Your task to perform on an android device: Search for seafood restaurants on Google Maps Image 0: 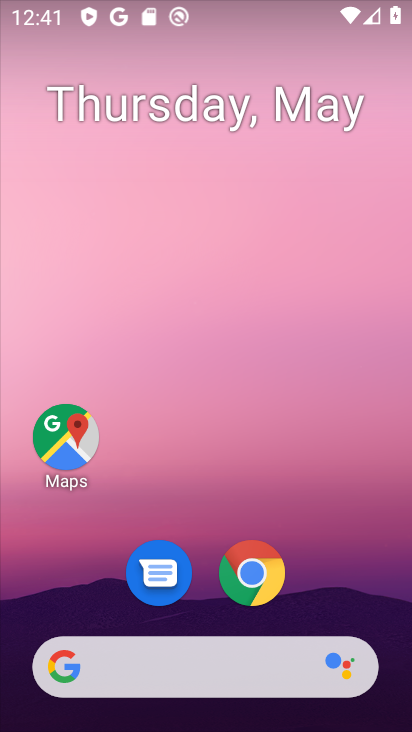
Step 0: drag from (319, 561) to (401, 258)
Your task to perform on an android device: Search for seafood restaurants on Google Maps Image 1: 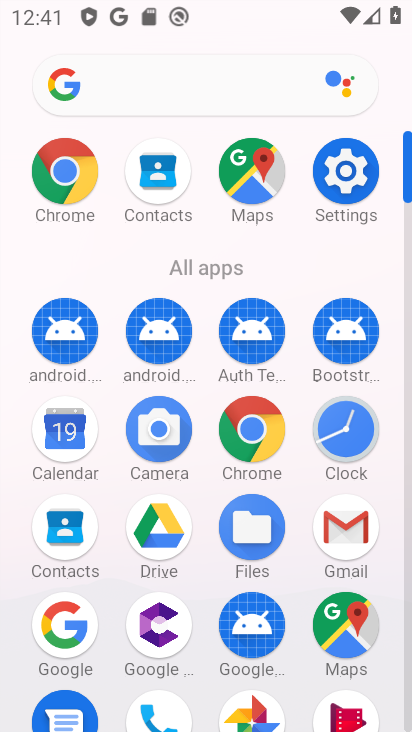
Step 1: drag from (13, 595) to (10, 209)
Your task to perform on an android device: Search for seafood restaurants on Google Maps Image 2: 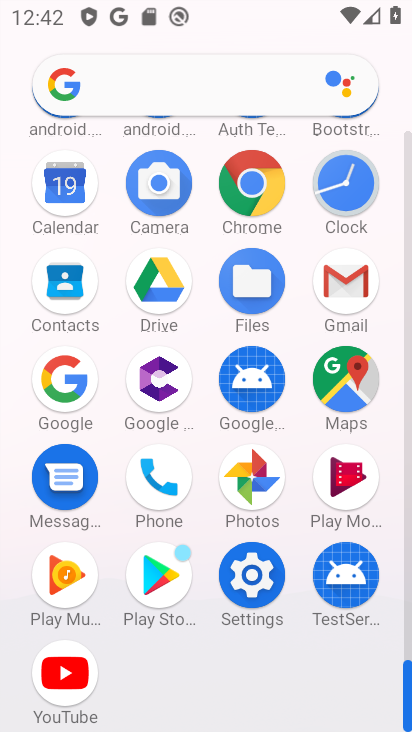
Step 2: click (354, 371)
Your task to perform on an android device: Search for seafood restaurants on Google Maps Image 3: 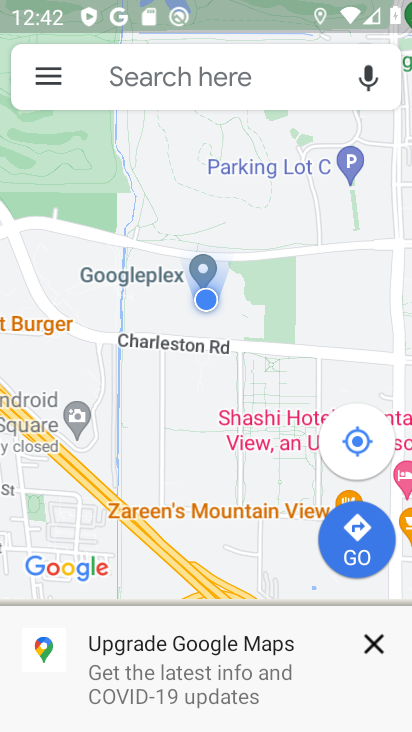
Step 3: task complete